Your task to perform on an android device: turn on sleep mode Image 0: 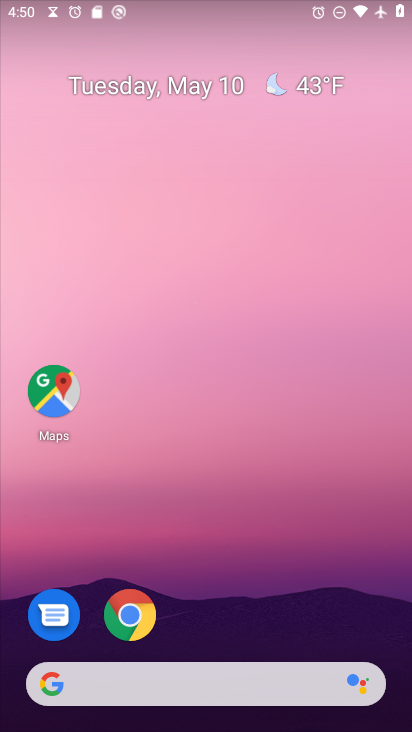
Step 0: drag from (230, 507) to (234, 88)
Your task to perform on an android device: turn on sleep mode Image 1: 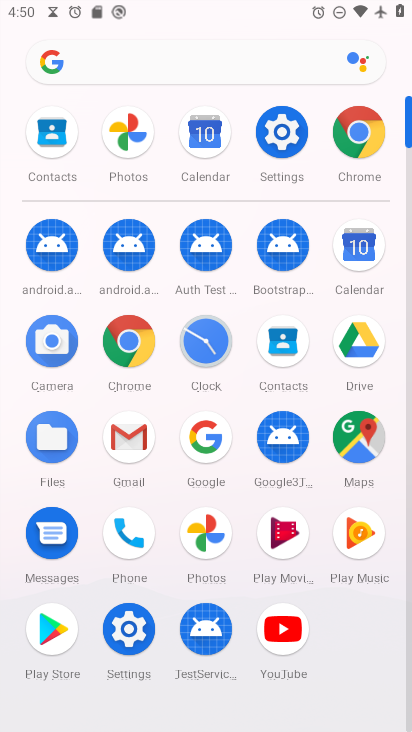
Step 1: click (131, 624)
Your task to perform on an android device: turn on sleep mode Image 2: 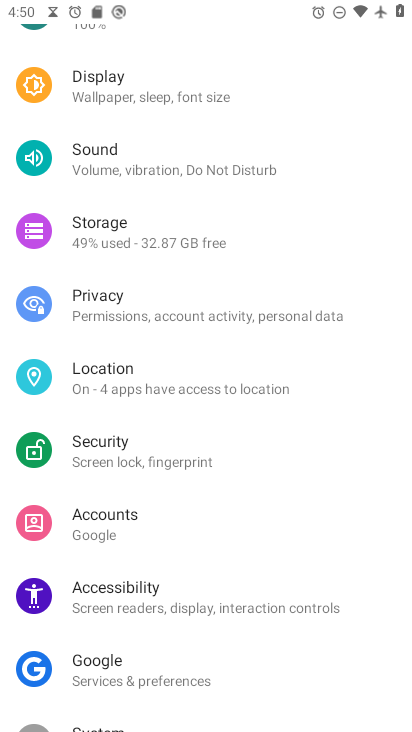
Step 2: click (186, 157)
Your task to perform on an android device: turn on sleep mode Image 3: 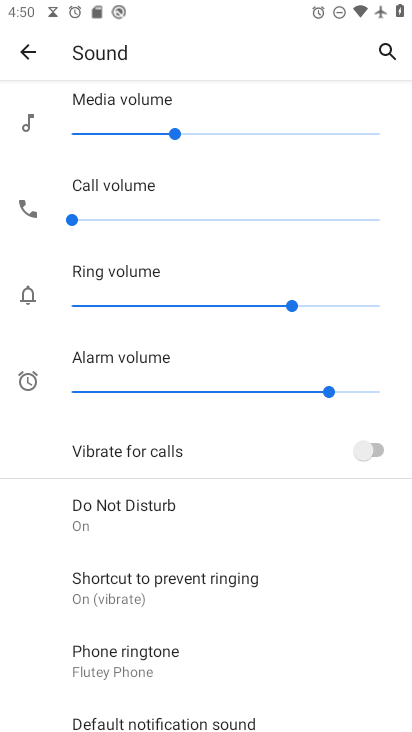
Step 3: drag from (226, 589) to (234, 140)
Your task to perform on an android device: turn on sleep mode Image 4: 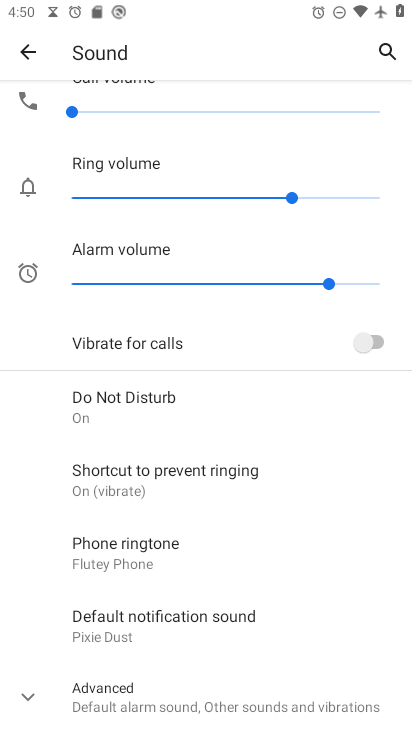
Step 4: drag from (197, 580) to (205, 160)
Your task to perform on an android device: turn on sleep mode Image 5: 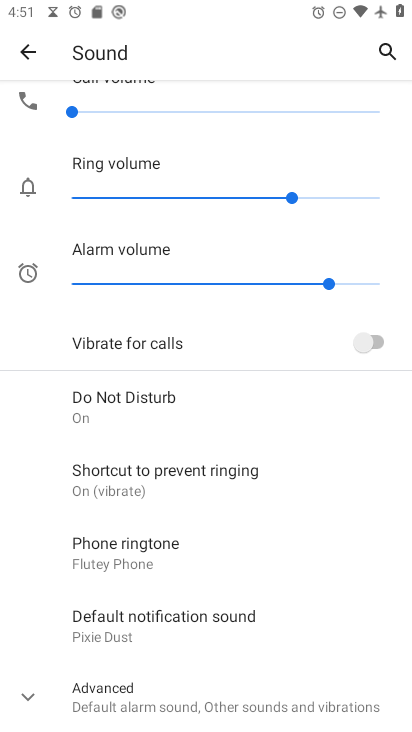
Step 5: click (31, 693)
Your task to perform on an android device: turn on sleep mode Image 6: 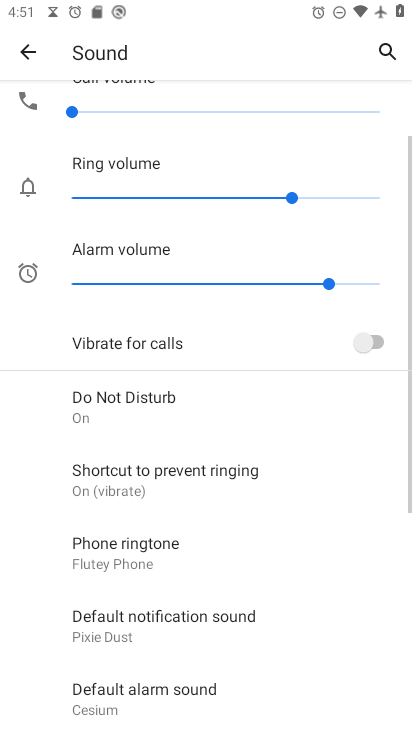
Step 6: task complete